Your task to perform on an android device: Open Google Image 0: 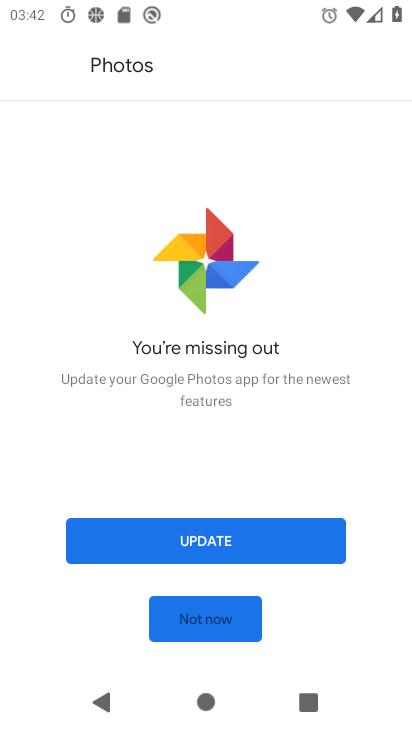
Step 0: press home button
Your task to perform on an android device: Open Google Image 1: 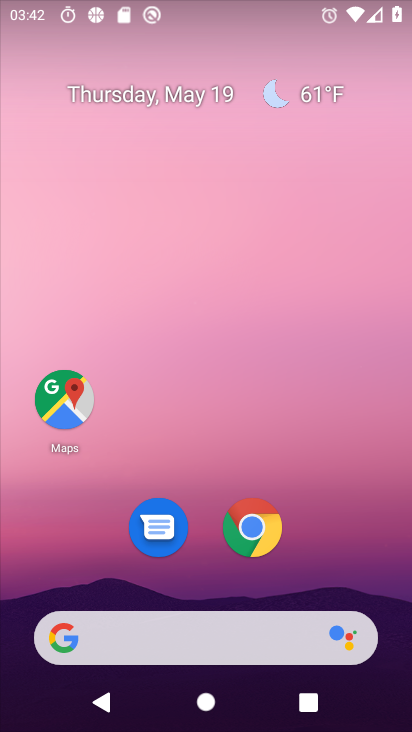
Step 1: drag from (210, 598) to (275, 109)
Your task to perform on an android device: Open Google Image 2: 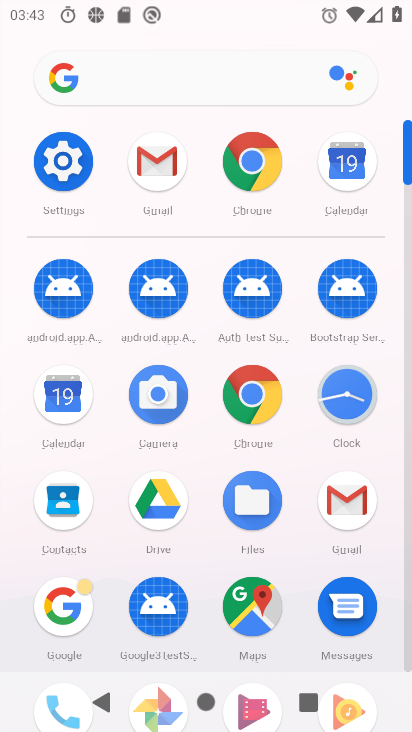
Step 2: click (67, 599)
Your task to perform on an android device: Open Google Image 3: 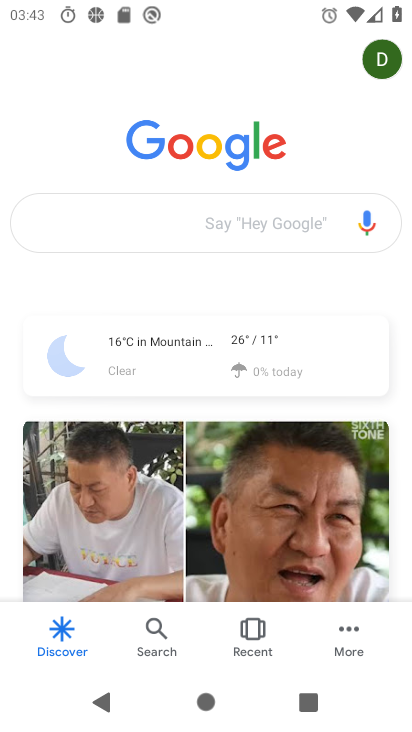
Step 3: task complete